Your task to perform on an android device: When is my next appointment? Image 0: 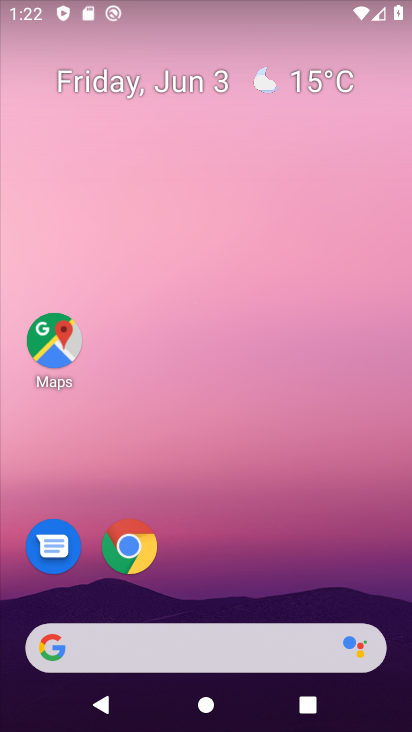
Step 0: press home button
Your task to perform on an android device: When is my next appointment? Image 1: 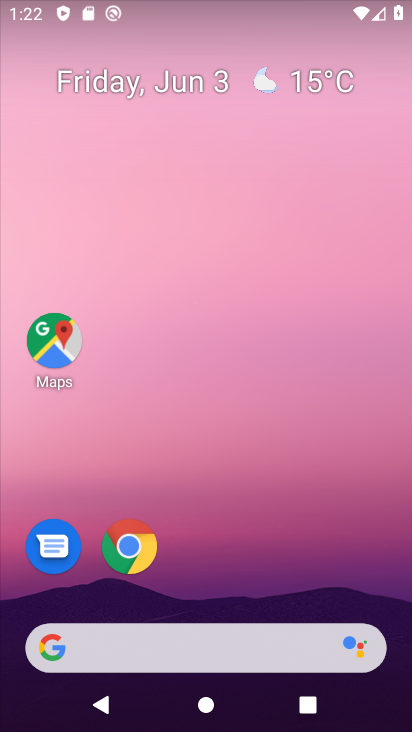
Step 1: drag from (349, 544) to (374, 133)
Your task to perform on an android device: When is my next appointment? Image 2: 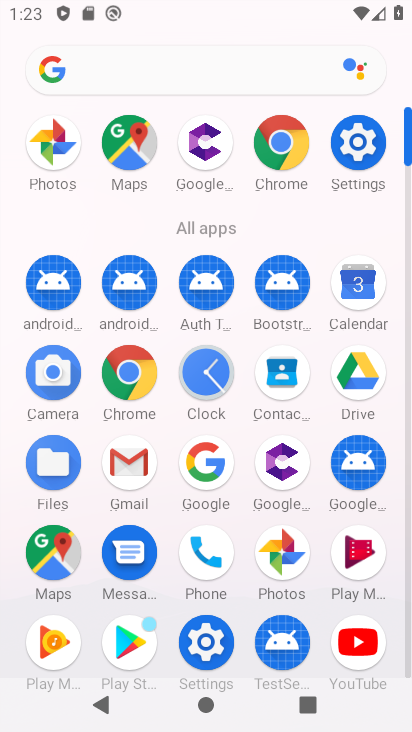
Step 2: click (362, 300)
Your task to perform on an android device: When is my next appointment? Image 3: 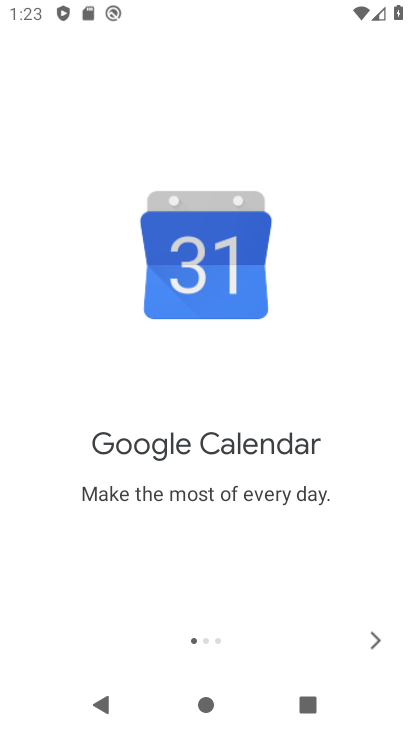
Step 3: click (384, 528)
Your task to perform on an android device: When is my next appointment? Image 4: 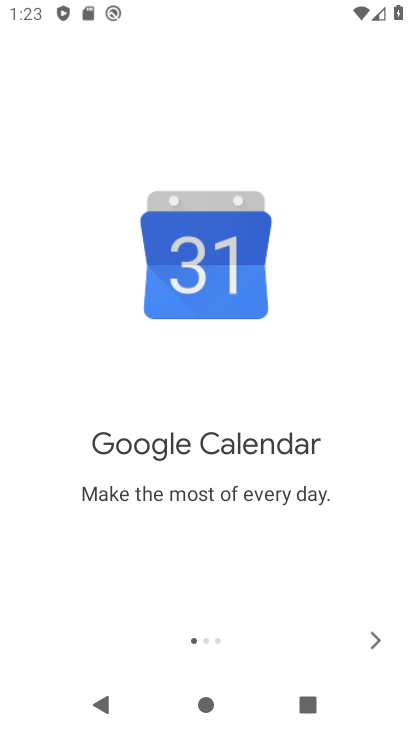
Step 4: click (371, 643)
Your task to perform on an android device: When is my next appointment? Image 5: 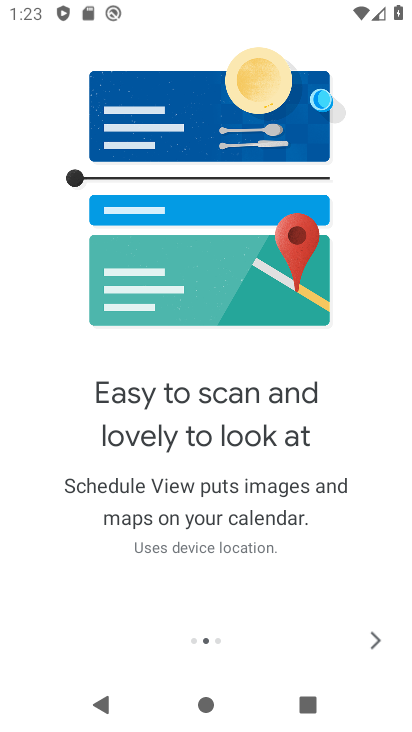
Step 5: click (371, 642)
Your task to perform on an android device: When is my next appointment? Image 6: 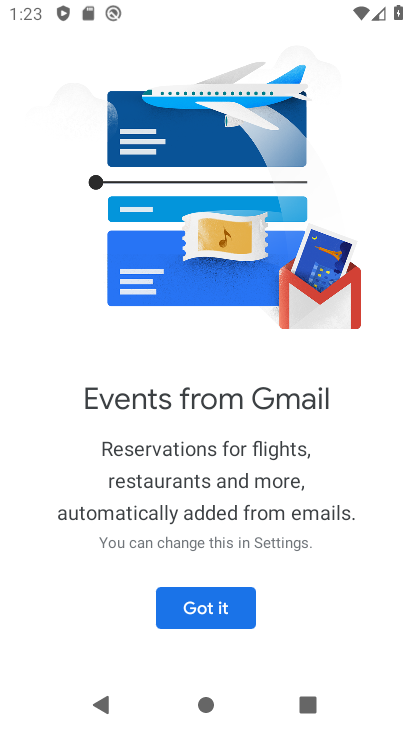
Step 6: click (202, 596)
Your task to perform on an android device: When is my next appointment? Image 7: 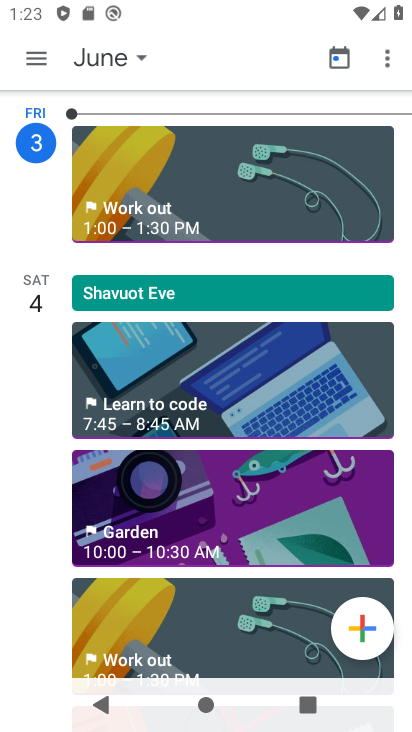
Step 7: task complete